Your task to perform on an android device: turn on showing notifications on the lock screen Image 0: 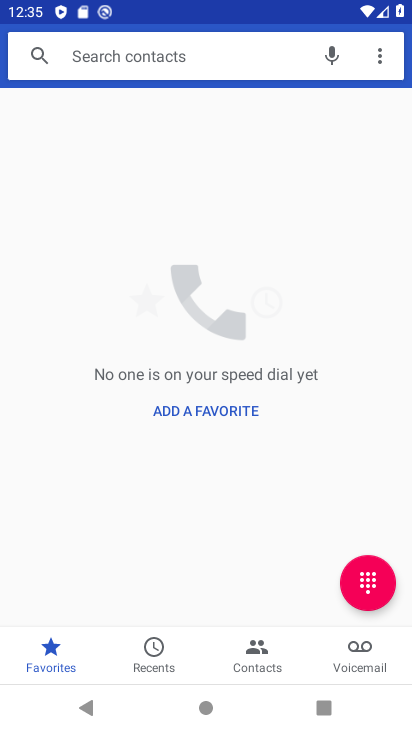
Step 0: press home button
Your task to perform on an android device: turn on showing notifications on the lock screen Image 1: 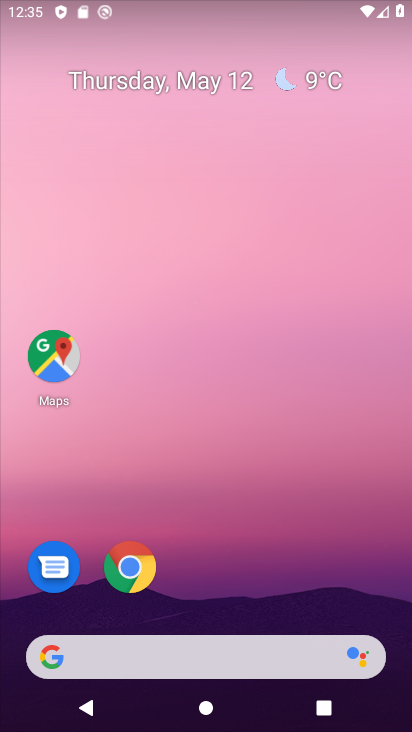
Step 1: drag from (190, 629) to (309, 73)
Your task to perform on an android device: turn on showing notifications on the lock screen Image 2: 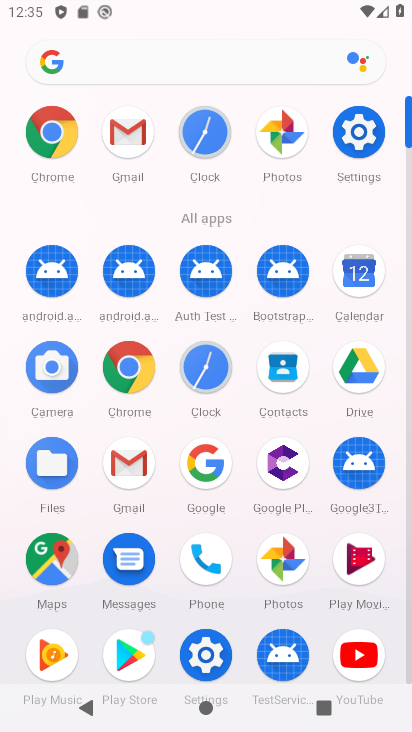
Step 2: click (206, 641)
Your task to perform on an android device: turn on showing notifications on the lock screen Image 3: 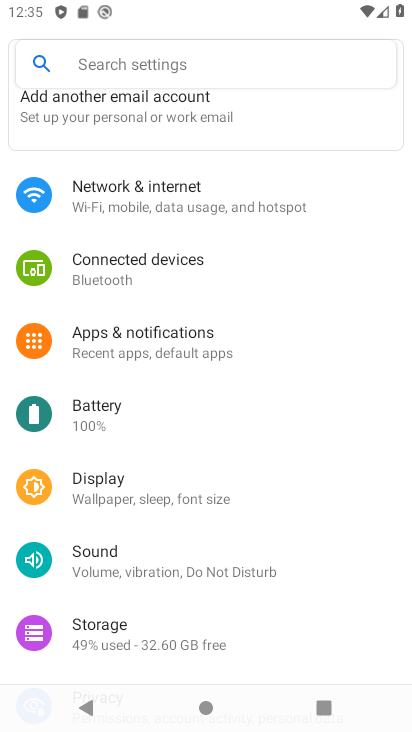
Step 3: click (172, 348)
Your task to perform on an android device: turn on showing notifications on the lock screen Image 4: 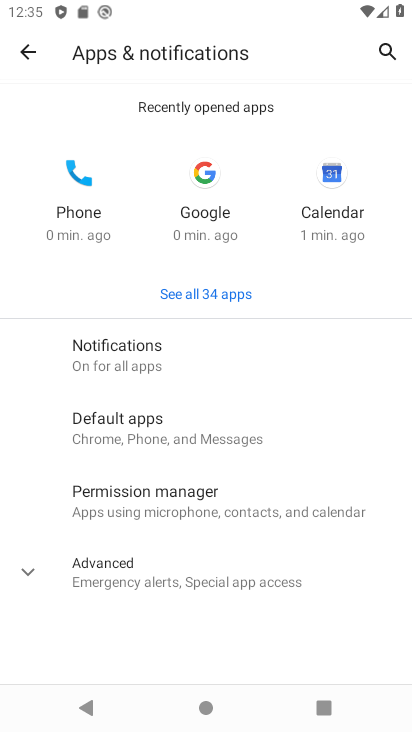
Step 4: click (201, 364)
Your task to perform on an android device: turn on showing notifications on the lock screen Image 5: 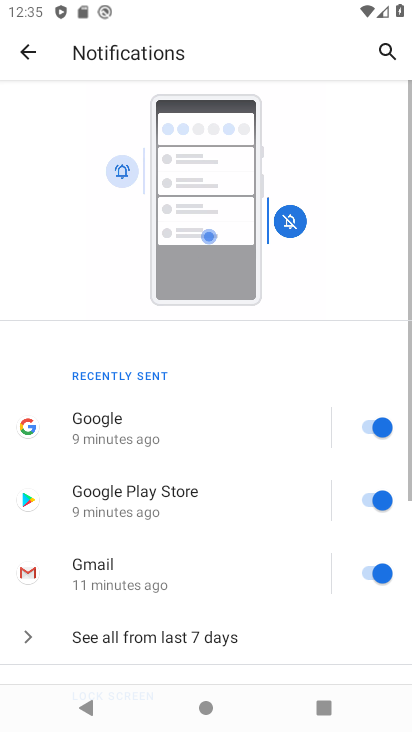
Step 5: drag from (250, 629) to (357, 82)
Your task to perform on an android device: turn on showing notifications on the lock screen Image 6: 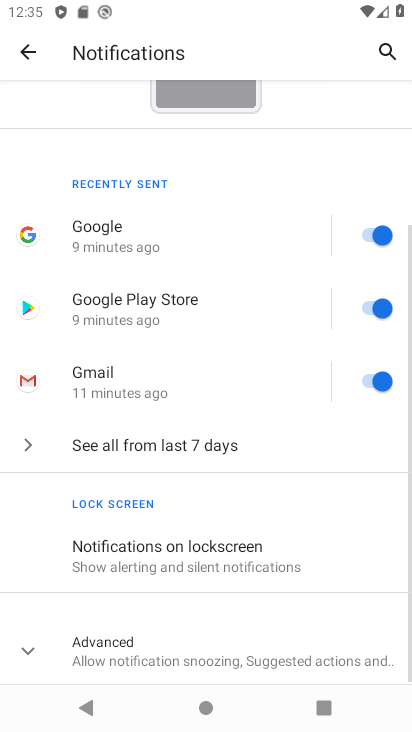
Step 6: click (232, 559)
Your task to perform on an android device: turn on showing notifications on the lock screen Image 7: 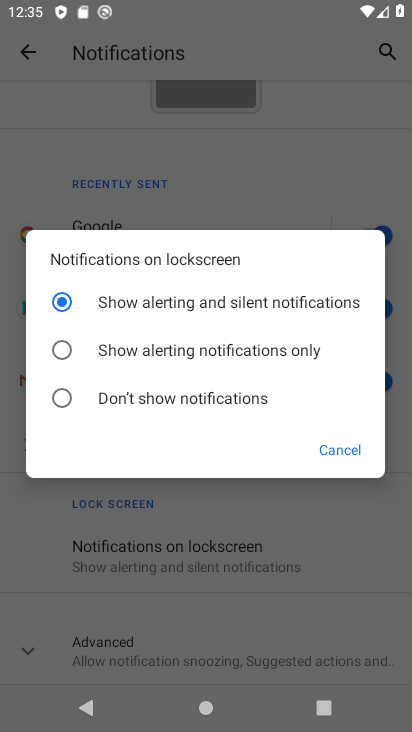
Step 7: task complete